Your task to perform on an android device: Open display settings Image 0: 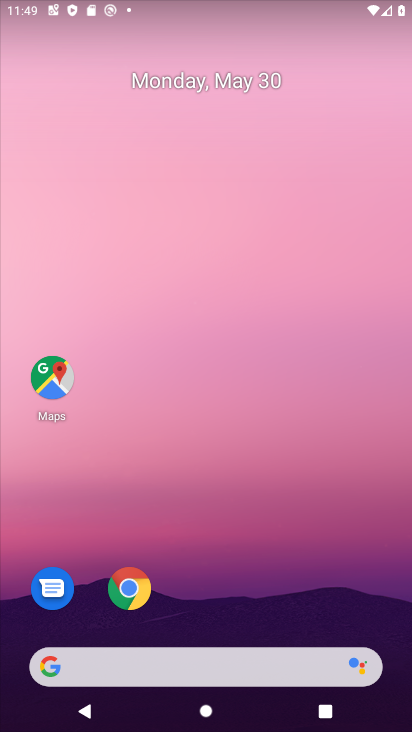
Step 0: drag from (220, 611) to (264, 54)
Your task to perform on an android device: Open display settings Image 1: 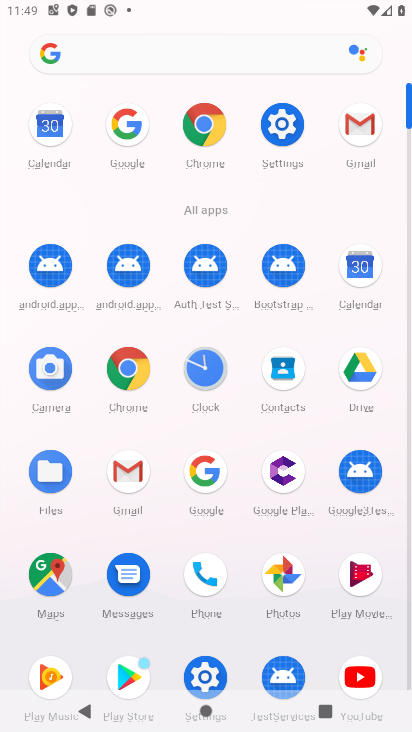
Step 1: click (279, 115)
Your task to perform on an android device: Open display settings Image 2: 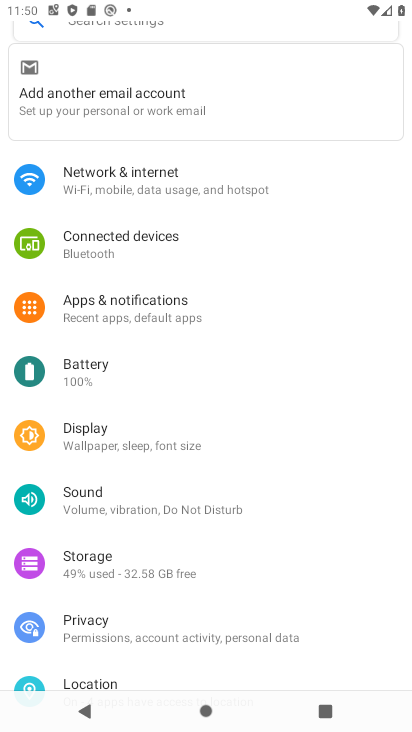
Step 2: click (104, 438)
Your task to perform on an android device: Open display settings Image 3: 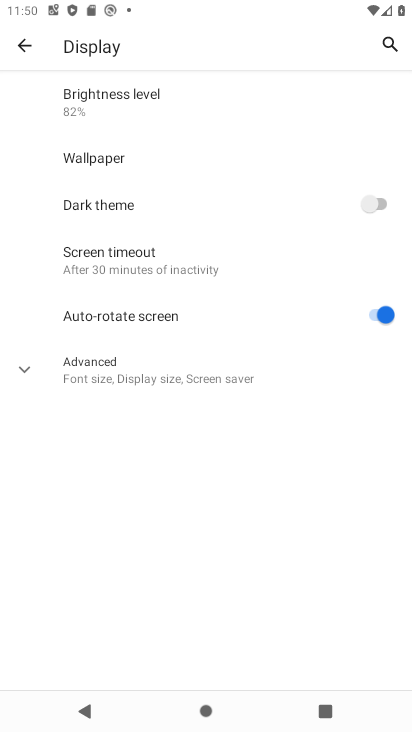
Step 3: click (46, 368)
Your task to perform on an android device: Open display settings Image 4: 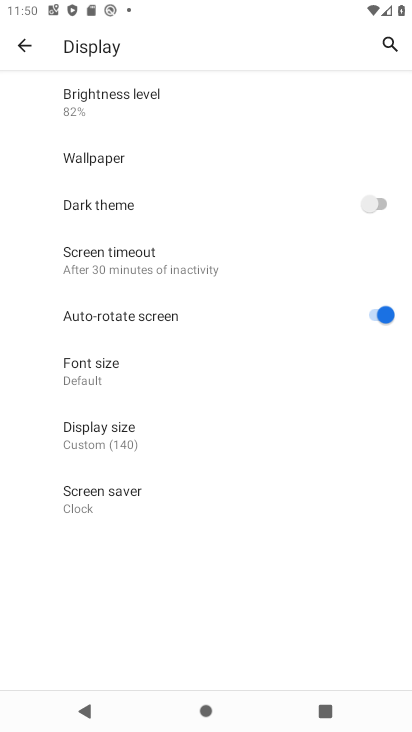
Step 4: task complete